Your task to perform on an android device: toggle pop-ups in chrome Image 0: 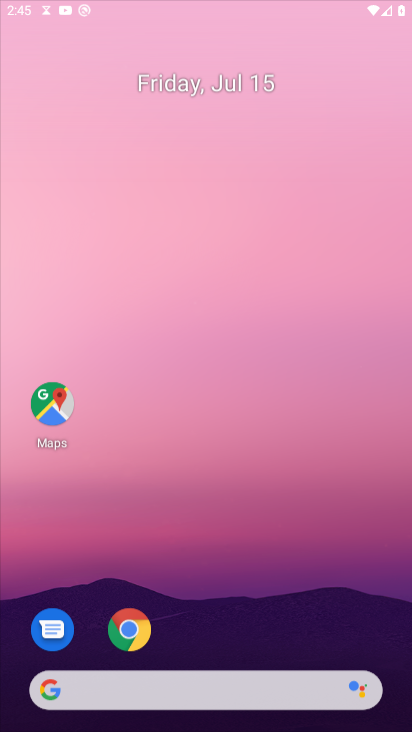
Step 0: press home button
Your task to perform on an android device: toggle pop-ups in chrome Image 1: 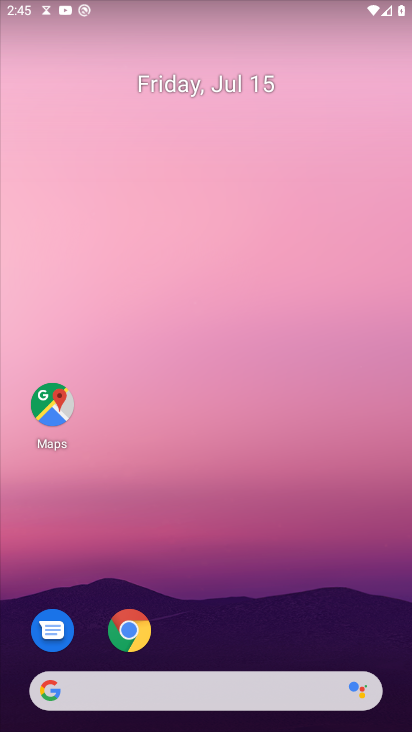
Step 1: drag from (252, 633) to (243, 173)
Your task to perform on an android device: toggle pop-ups in chrome Image 2: 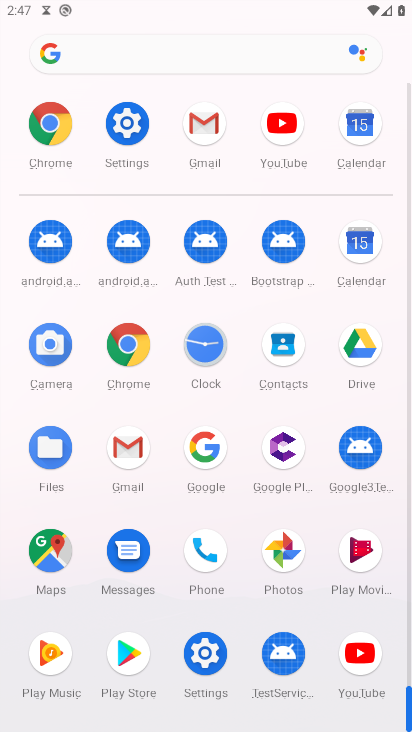
Step 2: click (141, 336)
Your task to perform on an android device: toggle pop-ups in chrome Image 3: 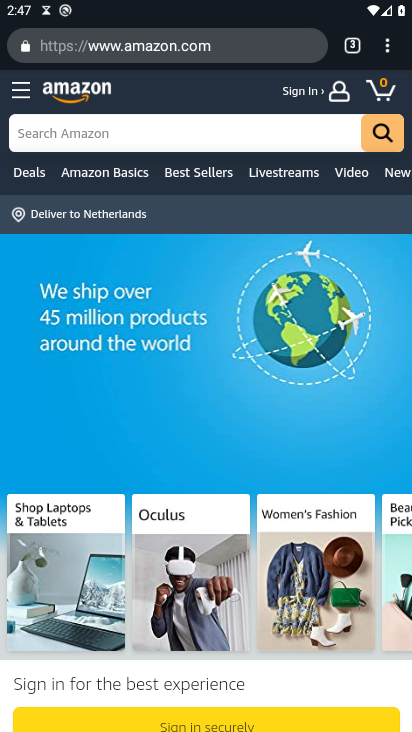
Step 3: drag from (386, 51) to (226, 553)
Your task to perform on an android device: toggle pop-ups in chrome Image 4: 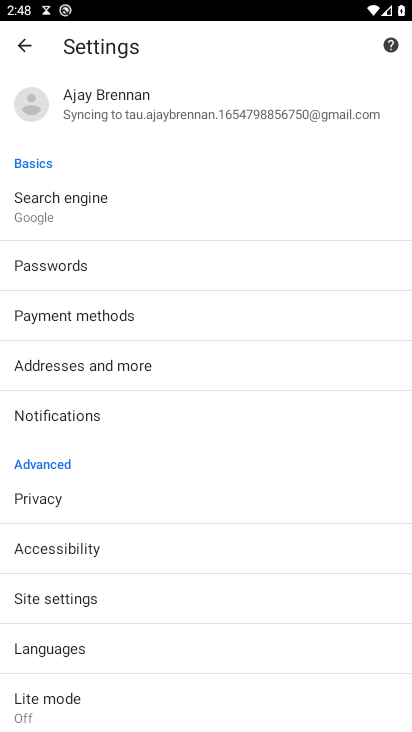
Step 4: click (53, 599)
Your task to perform on an android device: toggle pop-ups in chrome Image 5: 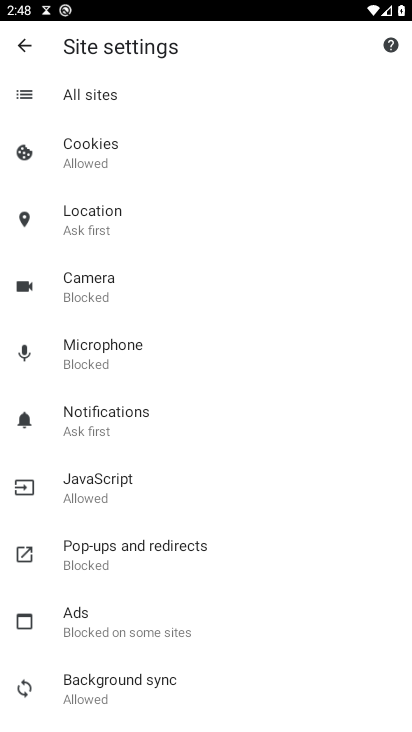
Step 5: click (113, 560)
Your task to perform on an android device: toggle pop-ups in chrome Image 6: 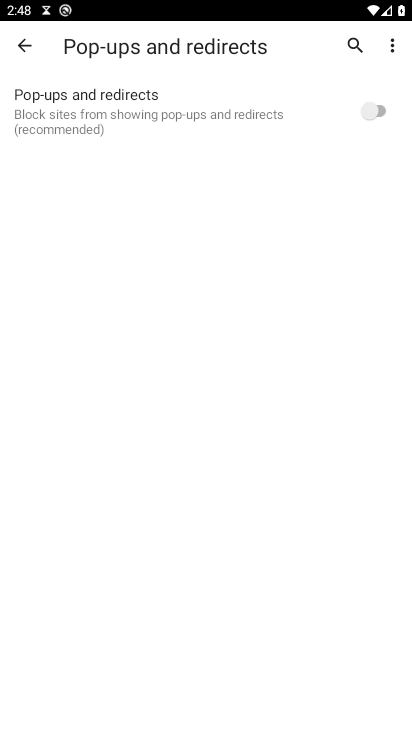
Step 6: click (378, 106)
Your task to perform on an android device: toggle pop-ups in chrome Image 7: 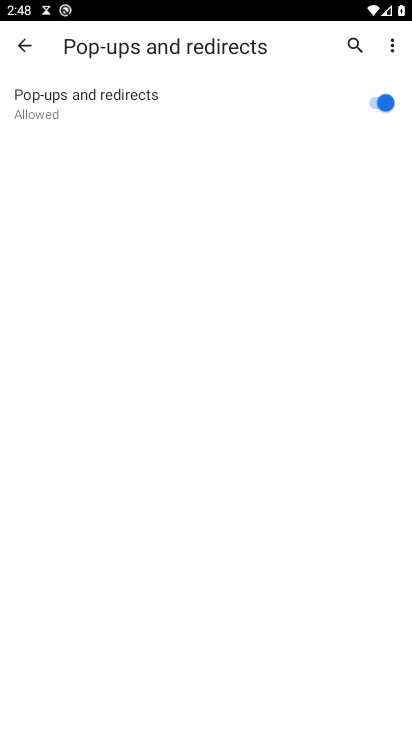
Step 7: task complete